Your task to perform on an android device: Open the map Image 0: 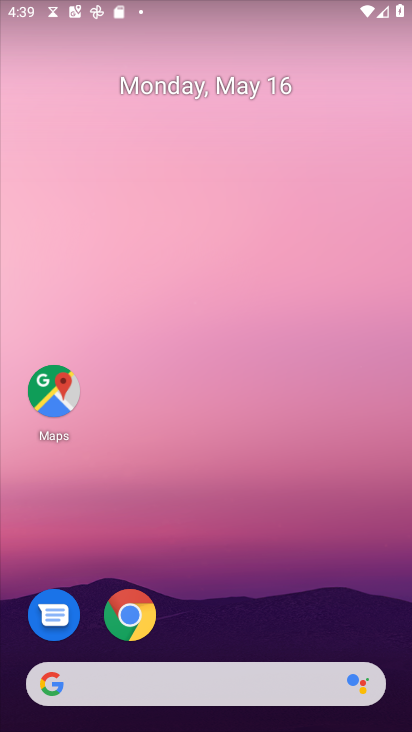
Step 0: click (64, 390)
Your task to perform on an android device: Open the map Image 1: 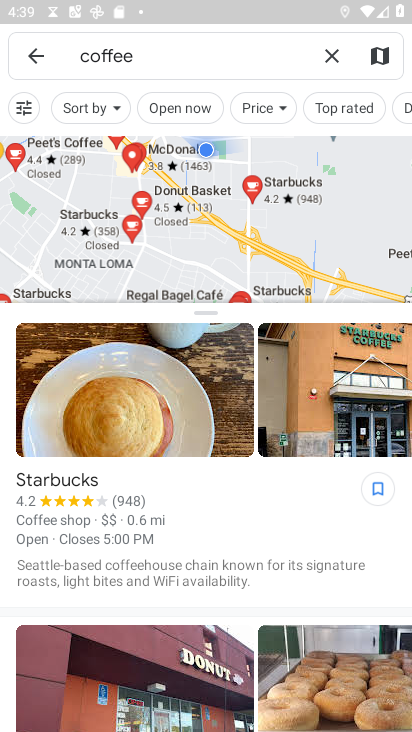
Step 1: task complete